Your task to perform on an android device: Go to accessibility settings Image 0: 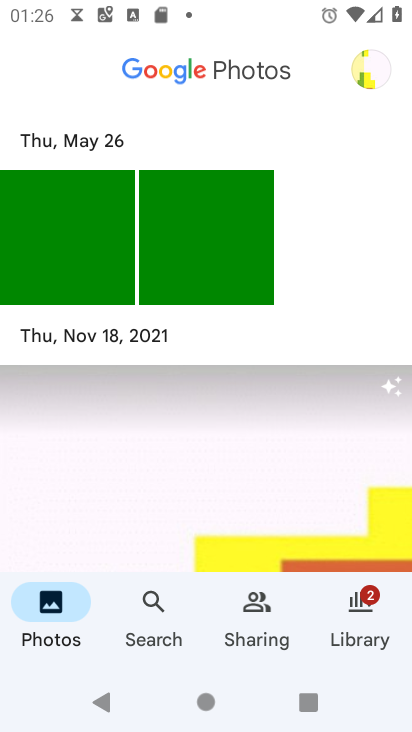
Step 0: press home button
Your task to perform on an android device: Go to accessibility settings Image 1: 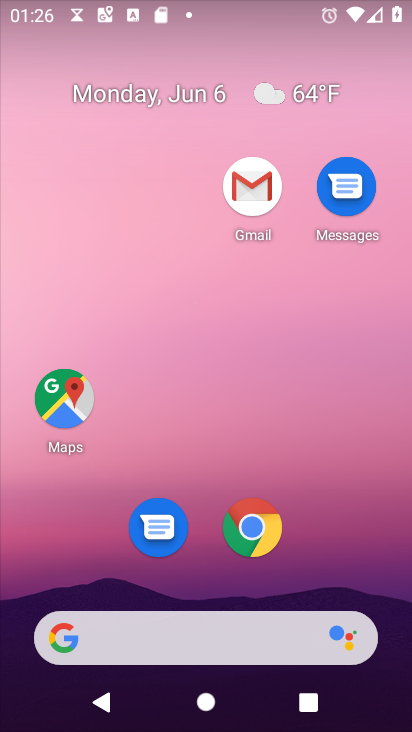
Step 1: drag from (341, 570) to (302, 118)
Your task to perform on an android device: Go to accessibility settings Image 2: 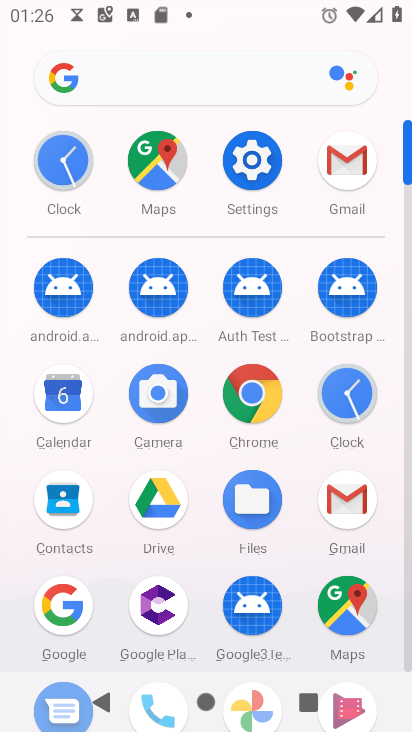
Step 2: click (250, 158)
Your task to perform on an android device: Go to accessibility settings Image 3: 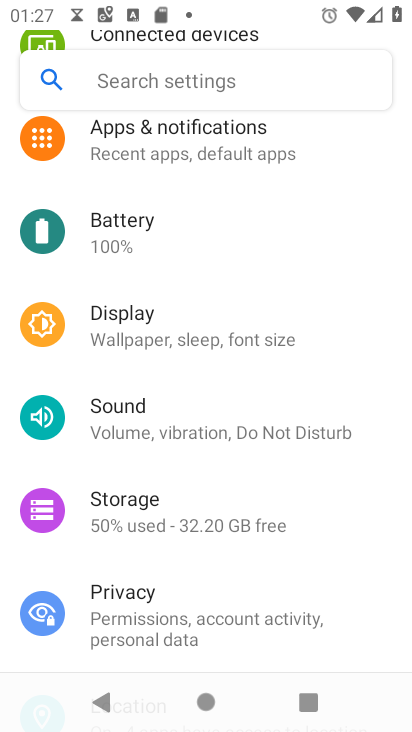
Step 3: drag from (262, 571) to (237, 159)
Your task to perform on an android device: Go to accessibility settings Image 4: 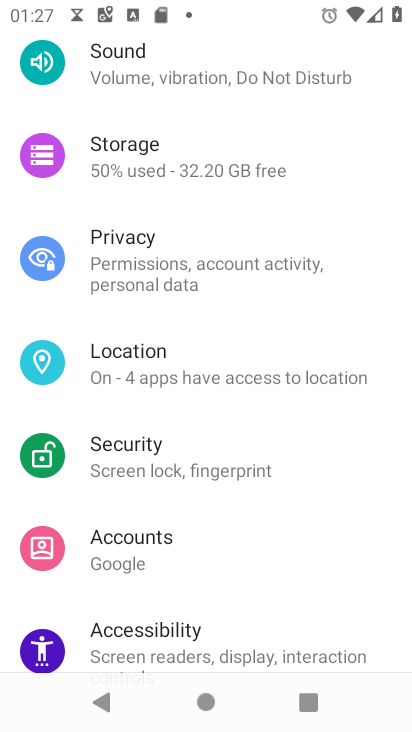
Step 4: click (266, 636)
Your task to perform on an android device: Go to accessibility settings Image 5: 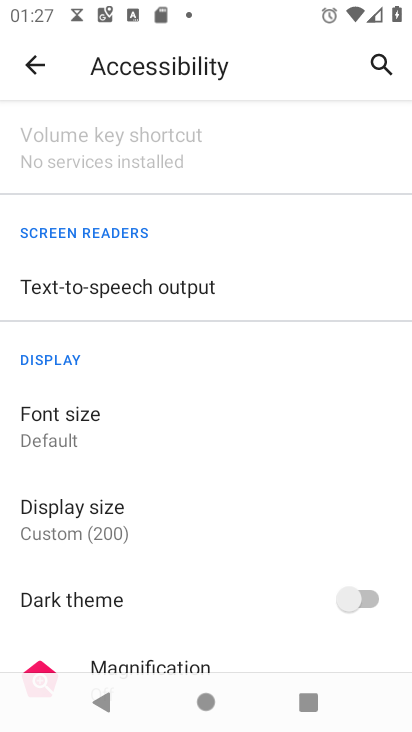
Step 5: task complete